Your task to perform on an android device: Open network settings Image 0: 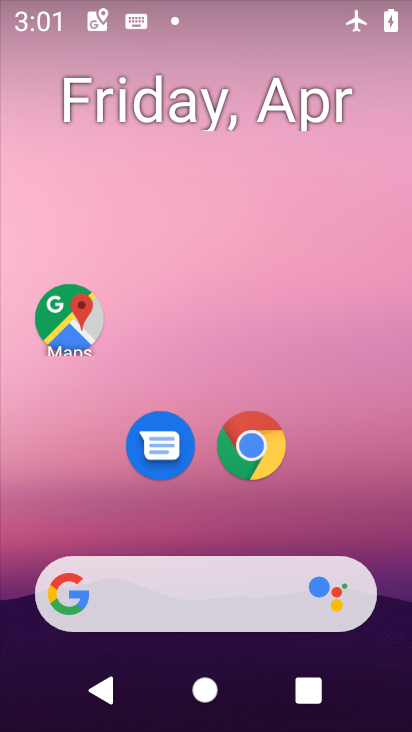
Step 0: drag from (315, 462) to (199, 94)
Your task to perform on an android device: Open network settings Image 1: 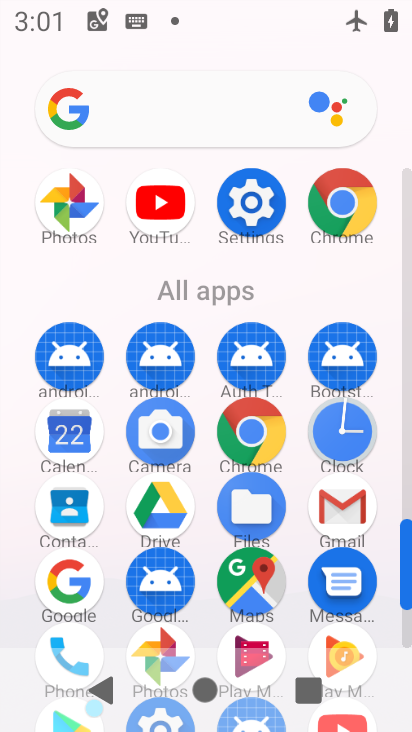
Step 1: click (264, 207)
Your task to perform on an android device: Open network settings Image 2: 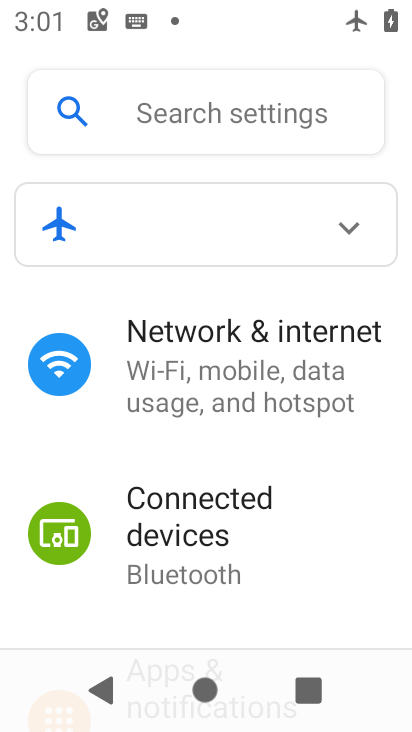
Step 2: click (235, 385)
Your task to perform on an android device: Open network settings Image 3: 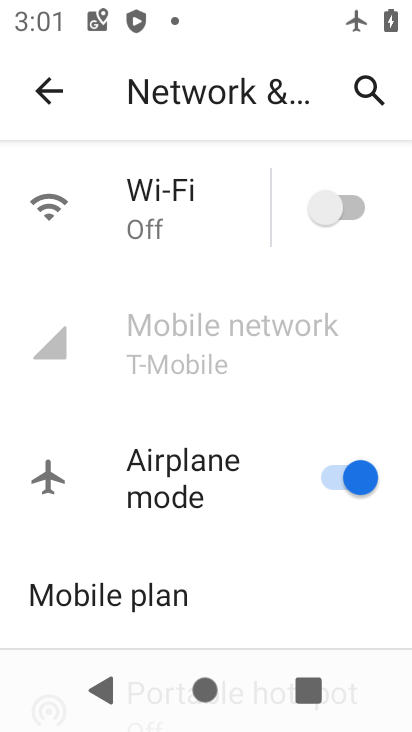
Step 3: task complete